Your task to perform on an android device: check battery use Image 0: 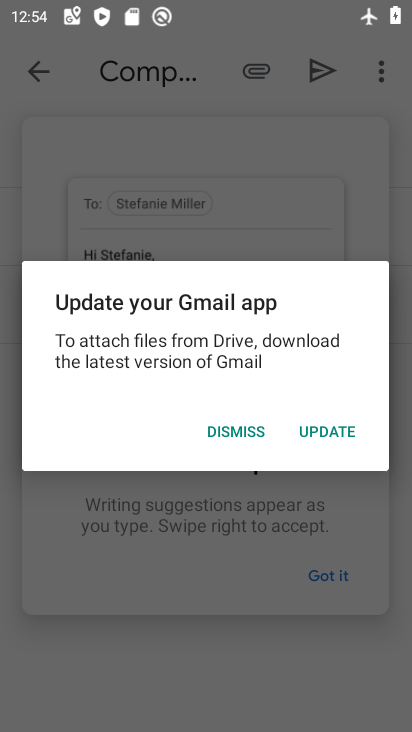
Step 0: press home button
Your task to perform on an android device: check battery use Image 1: 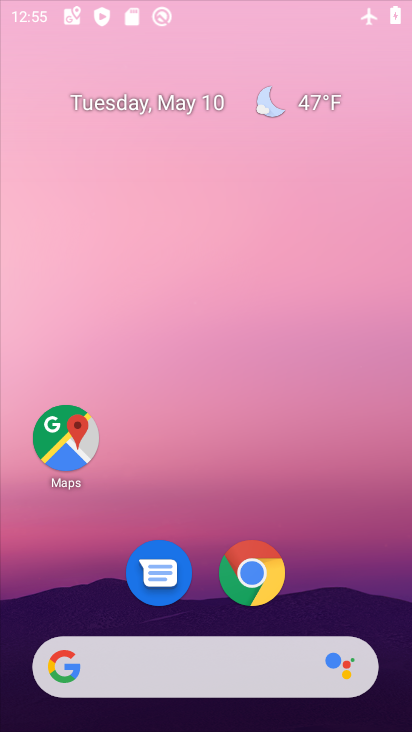
Step 1: drag from (256, 554) to (312, 325)
Your task to perform on an android device: check battery use Image 2: 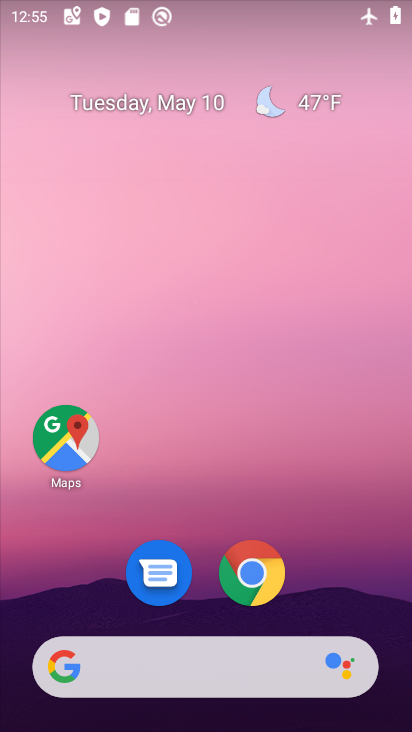
Step 2: drag from (194, 591) to (268, 267)
Your task to perform on an android device: check battery use Image 3: 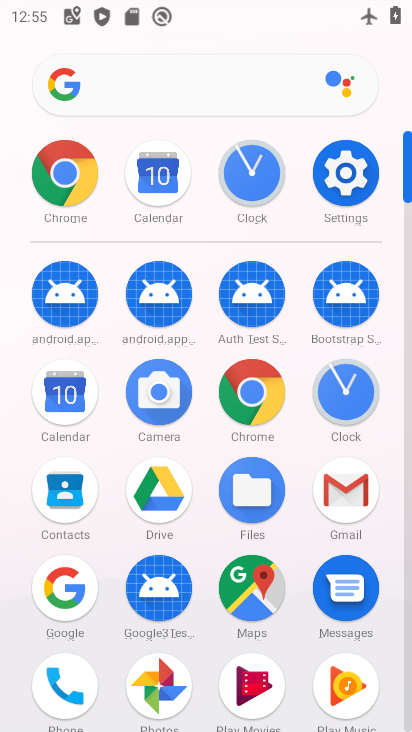
Step 3: click (357, 198)
Your task to perform on an android device: check battery use Image 4: 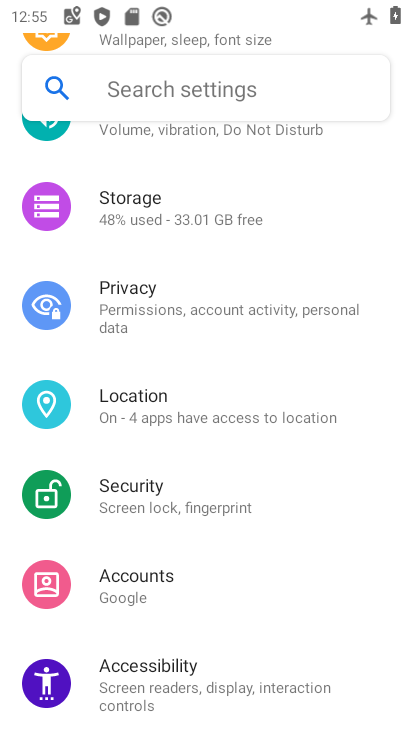
Step 4: drag from (187, 285) to (243, 711)
Your task to perform on an android device: check battery use Image 5: 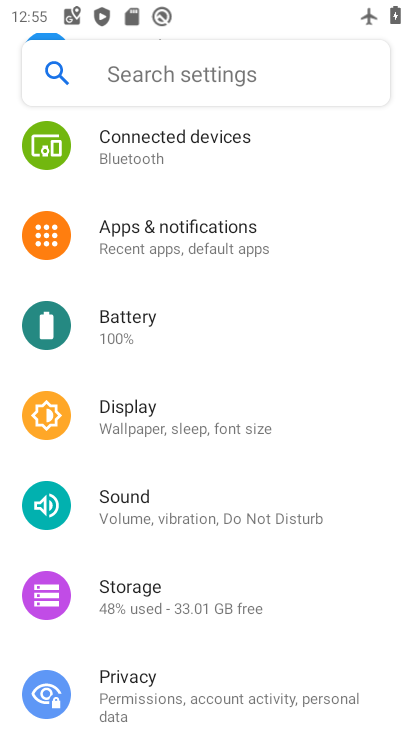
Step 5: click (142, 337)
Your task to perform on an android device: check battery use Image 6: 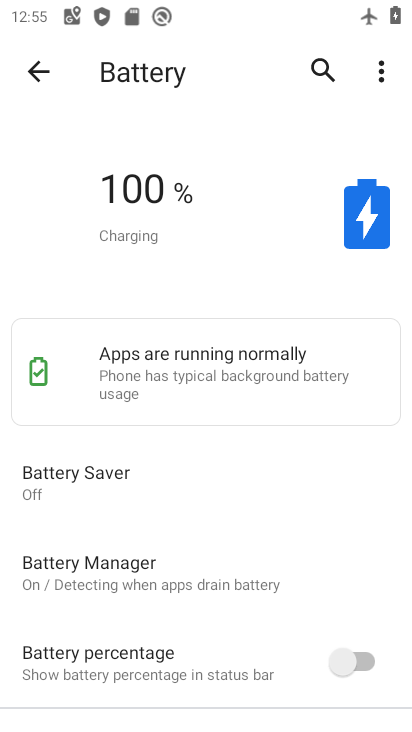
Step 6: click (381, 65)
Your task to perform on an android device: check battery use Image 7: 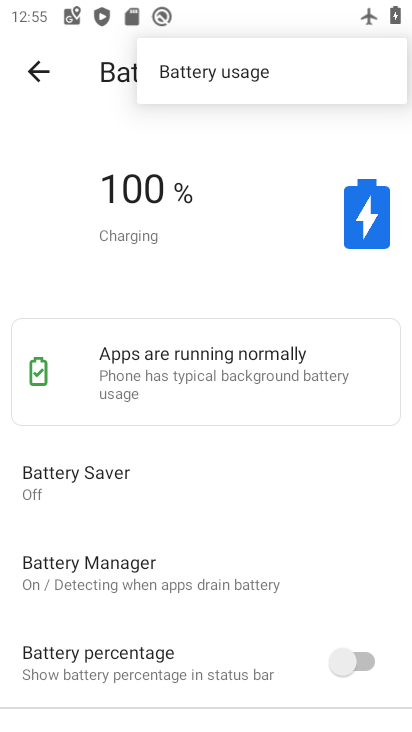
Step 7: click (303, 75)
Your task to perform on an android device: check battery use Image 8: 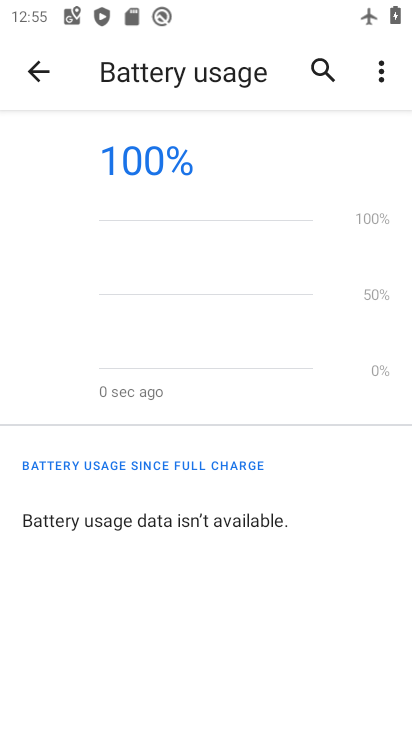
Step 8: task complete